Your task to perform on an android device: Open Google Image 0: 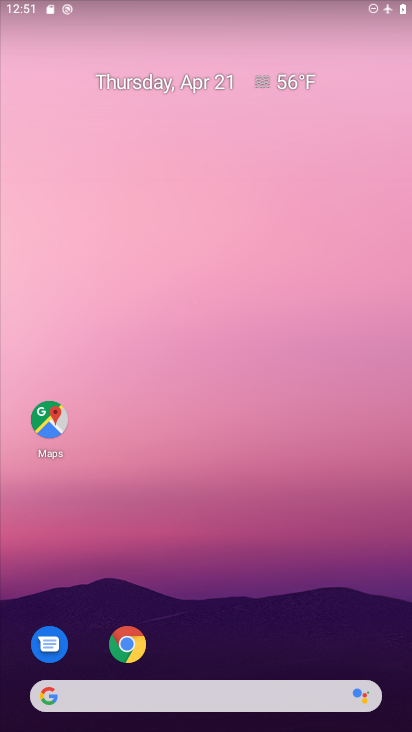
Step 0: press home button
Your task to perform on an android device: Open Google Image 1: 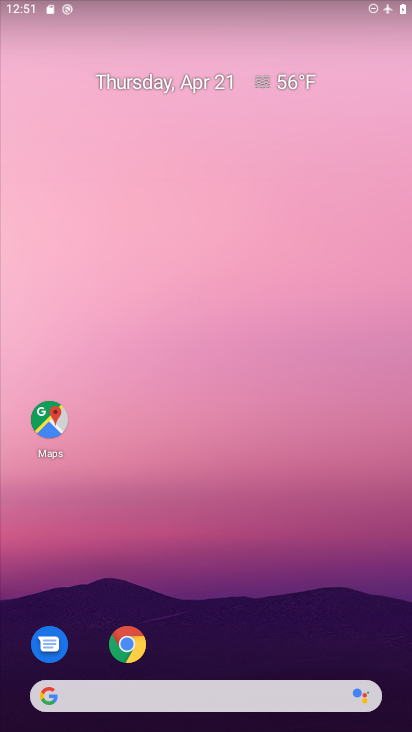
Step 1: drag from (219, 667) to (250, 53)
Your task to perform on an android device: Open Google Image 2: 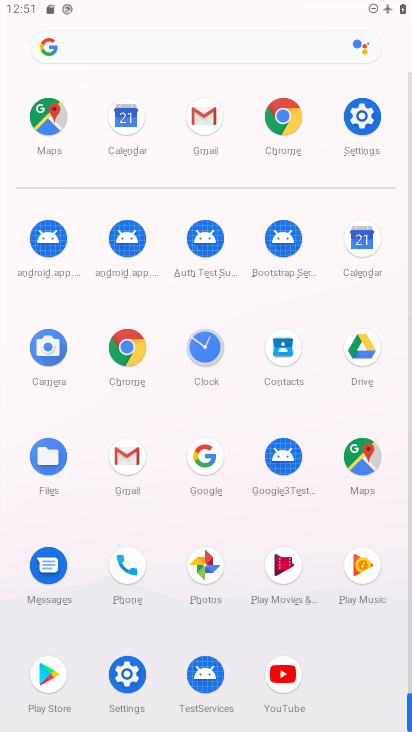
Step 2: click (209, 452)
Your task to perform on an android device: Open Google Image 3: 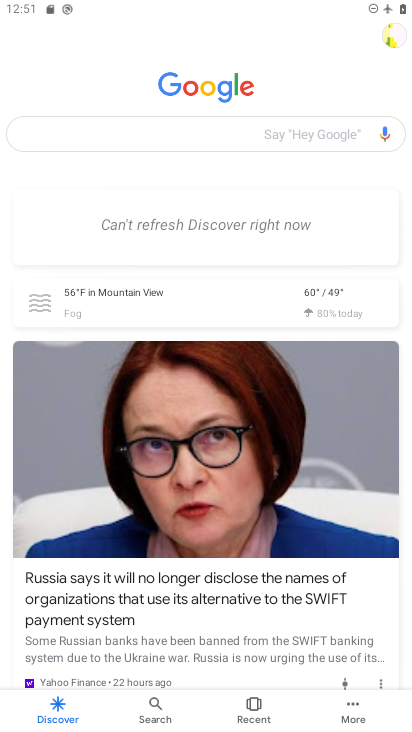
Step 3: task complete